Your task to perform on an android device: Open maps Image 0: 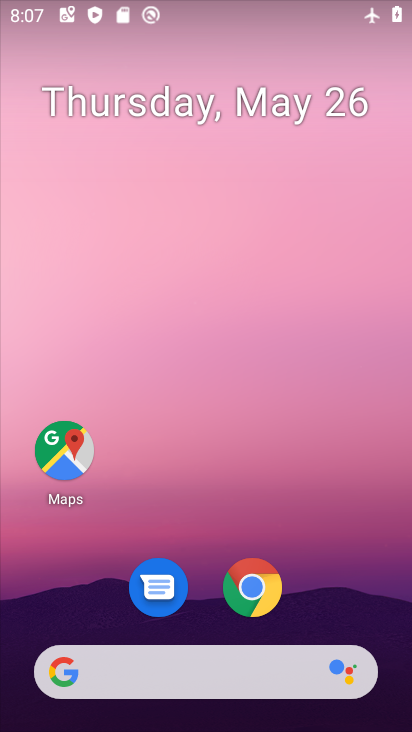
Step 0: click (66, 461)
Your task to perform on an android device: Open maps Image 1: 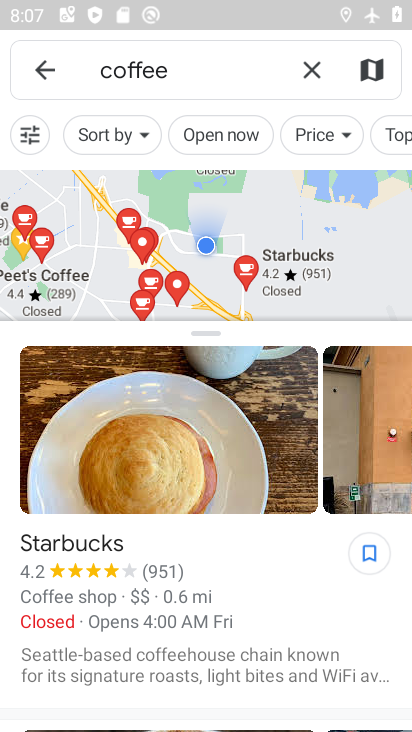
Step 1: task complete